Your task to perform on an android device: How do I get to the nearest Nordstrom? Image 0: 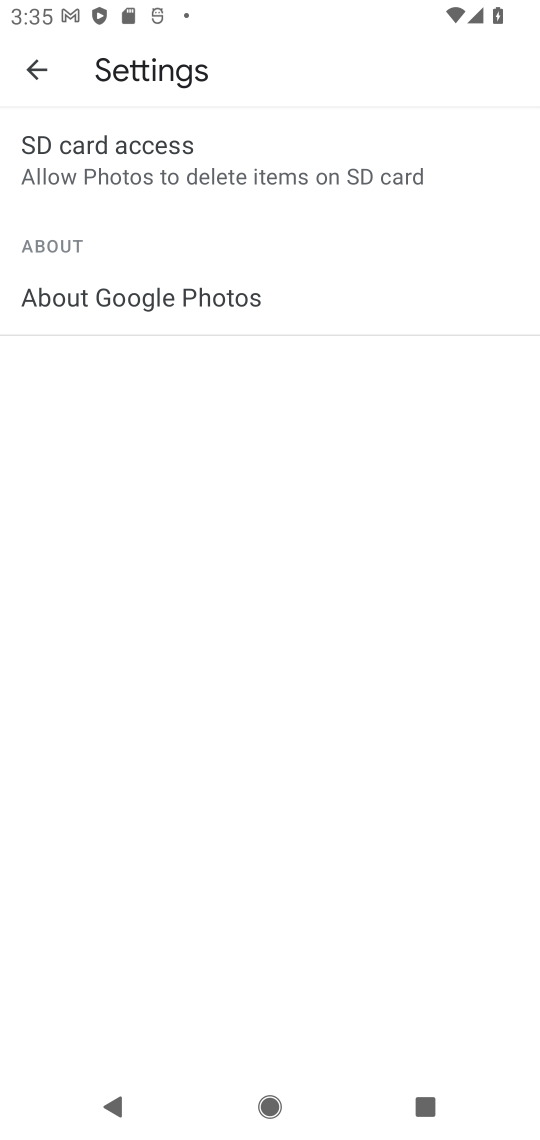
Step 0: press home button
Your task to perform on an android device: How do I get to the nearest Nordstrom? Image 1: 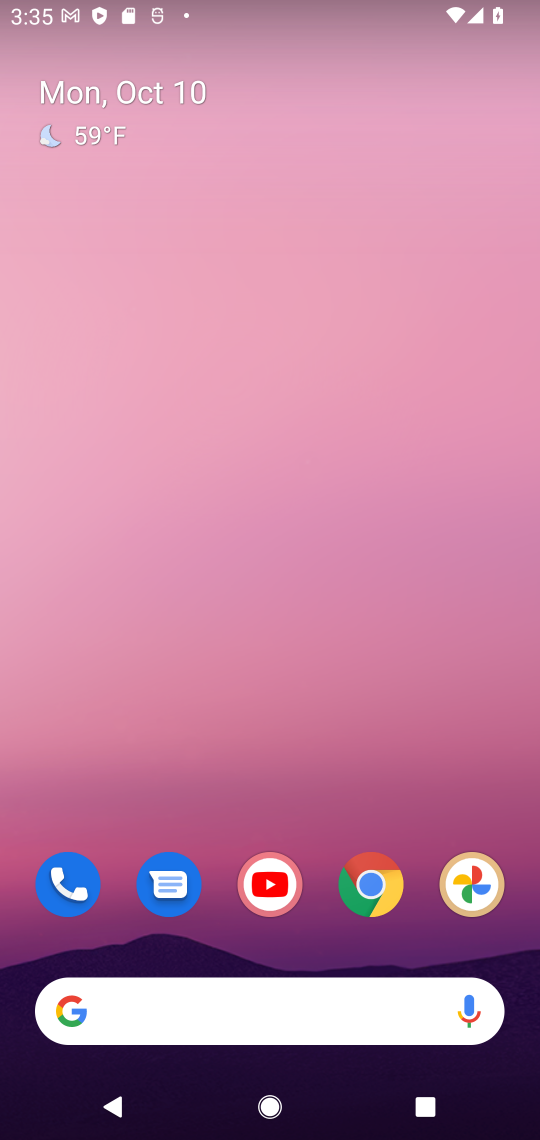
Step 1: click (373, 894)
Your task to perform on an android device: How do I get to the nearest Nordstrom? Image 2: 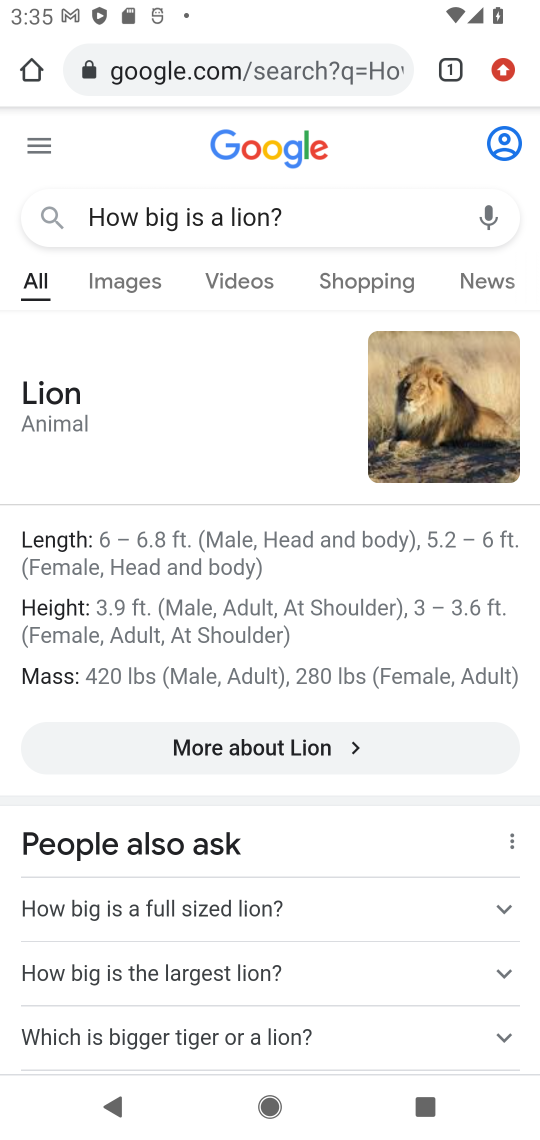
Step 2: click (318, 207)
Your task to perform on an android device: How do I get to the nearest Nordstrom? Image 3: 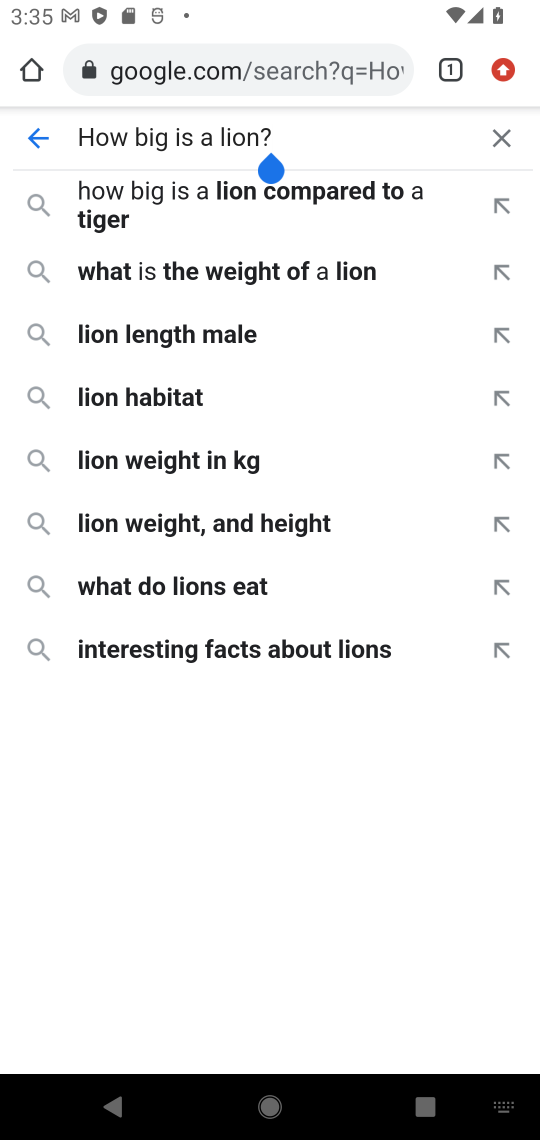
Step 3: click (494, 138)
Your task to perform on an android device: How do I get to the nearest Nordstrom? Image 4: 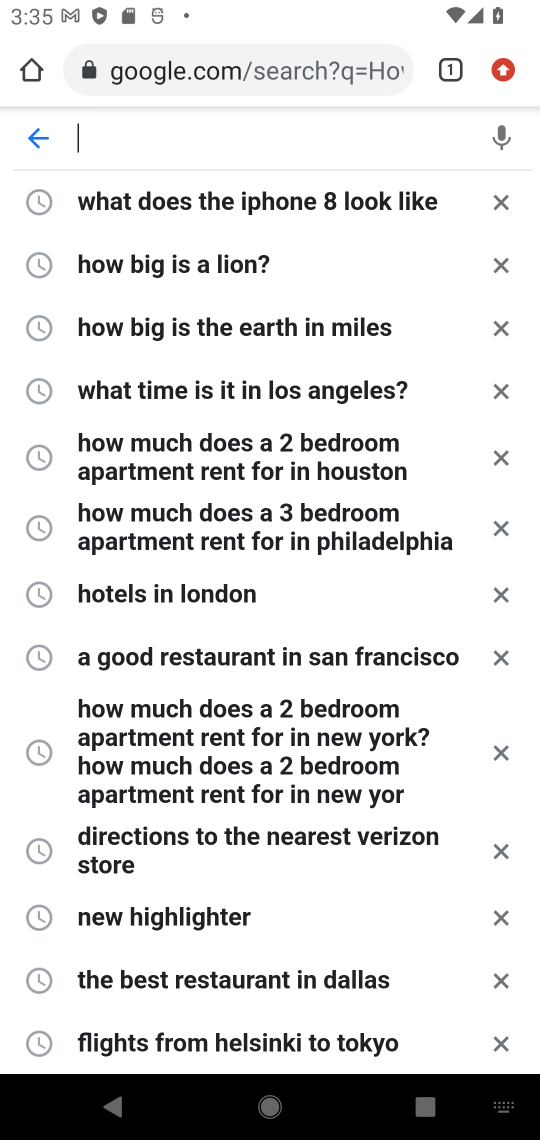
Step 4: type "How do I get to the nearest Nordstrom?"
Your task to perform on an android device: How do I get to the nearest Nordstrom? Image 5: 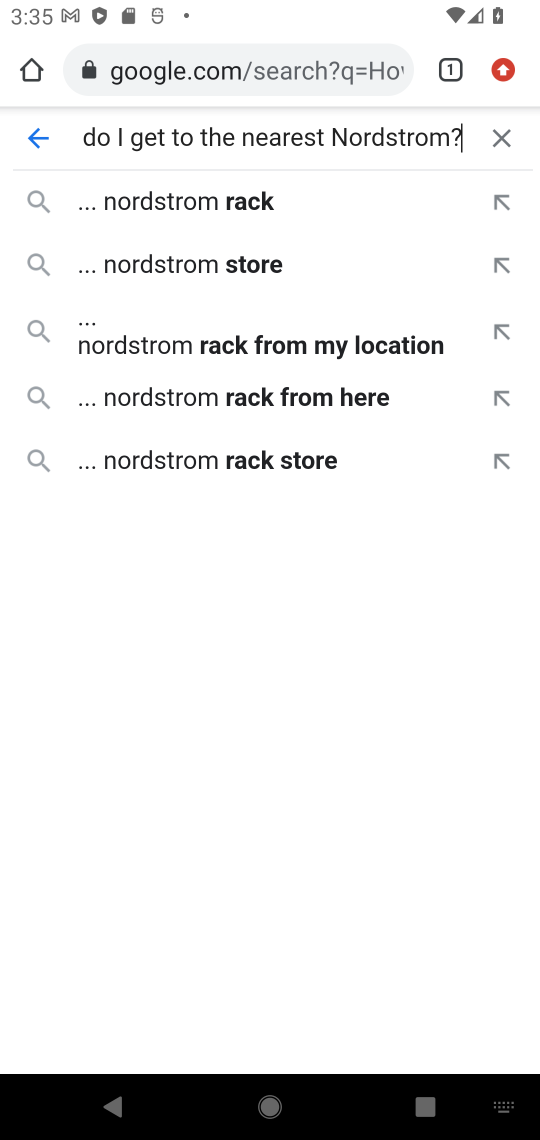
Step 5: click (179, 271)
Your task to perform on an android device: How do I get to the nearest Nordstrom? Image 6: 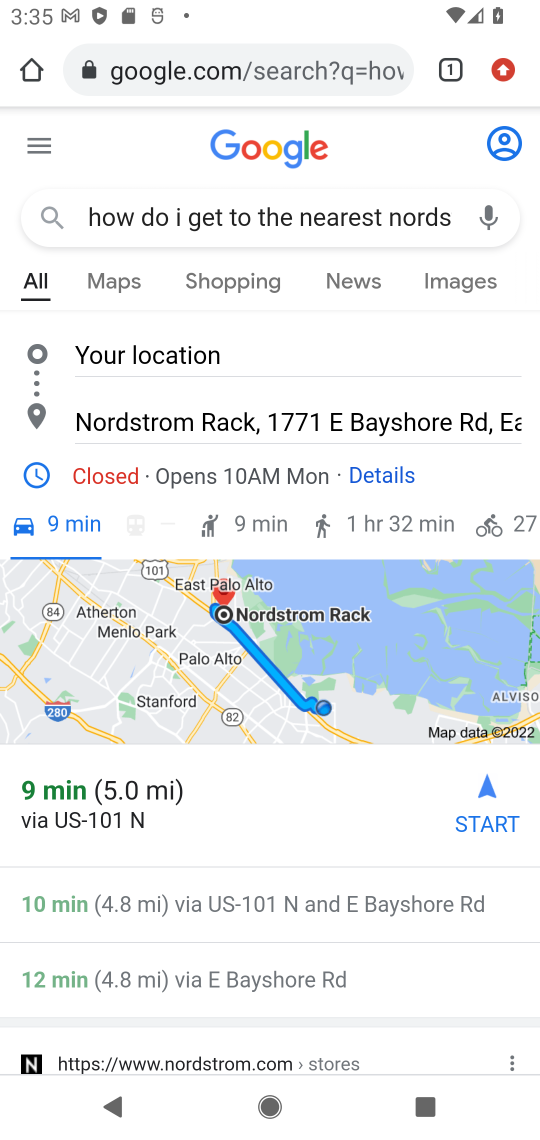
Step 6: task complete